Your task to perform on an android device: Go to CNN.com Image 0: 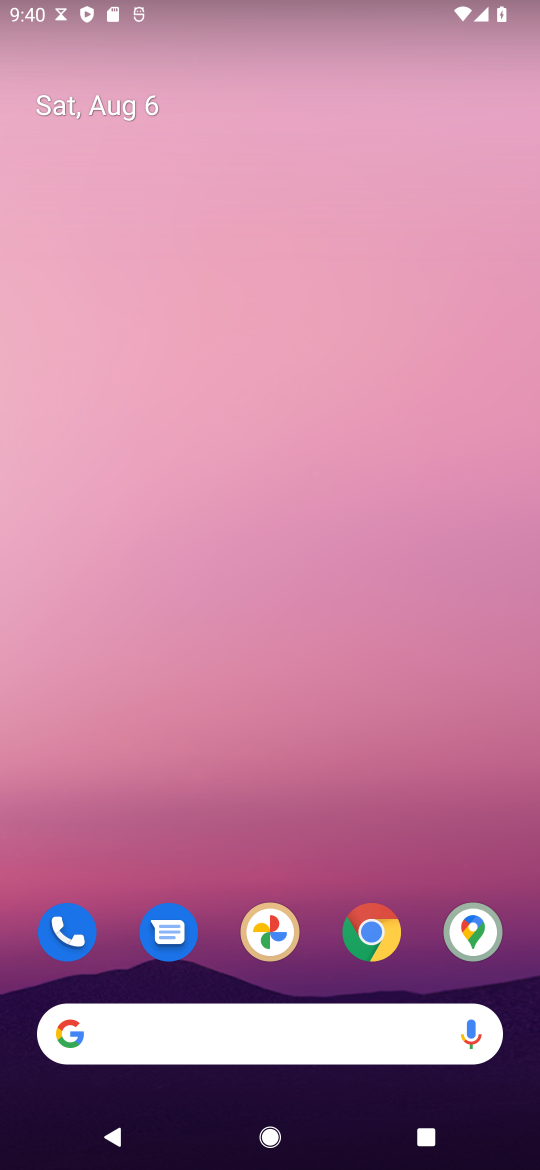
Step 0: click (371, 933)
Your task to perform on an android device: Go to CNN.com Image 1: 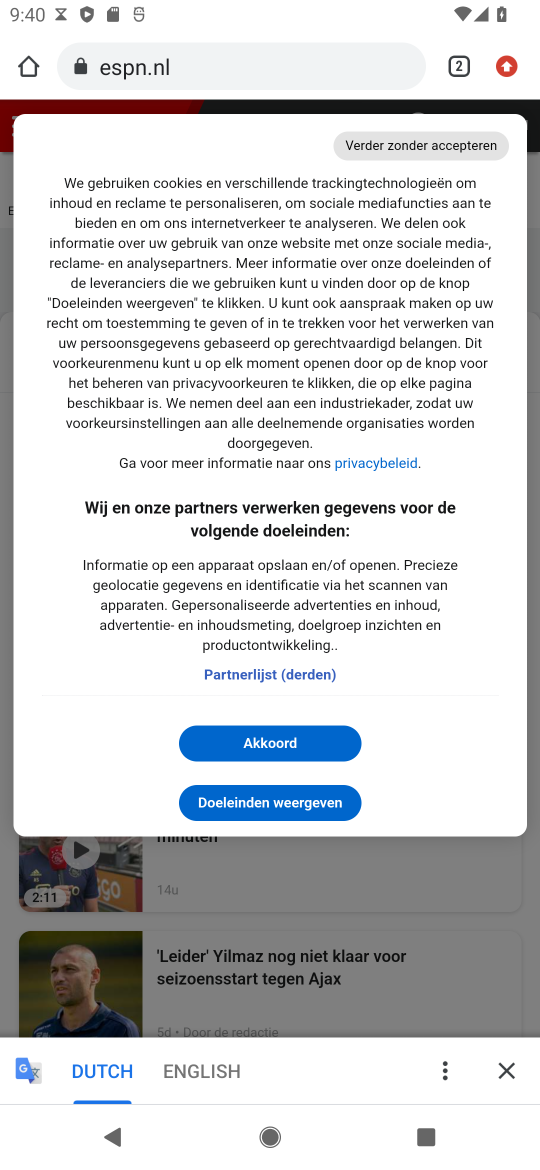
Step 1: click (273, 740)
Your task to perform on an android device: Go to CNN.com Image 2: 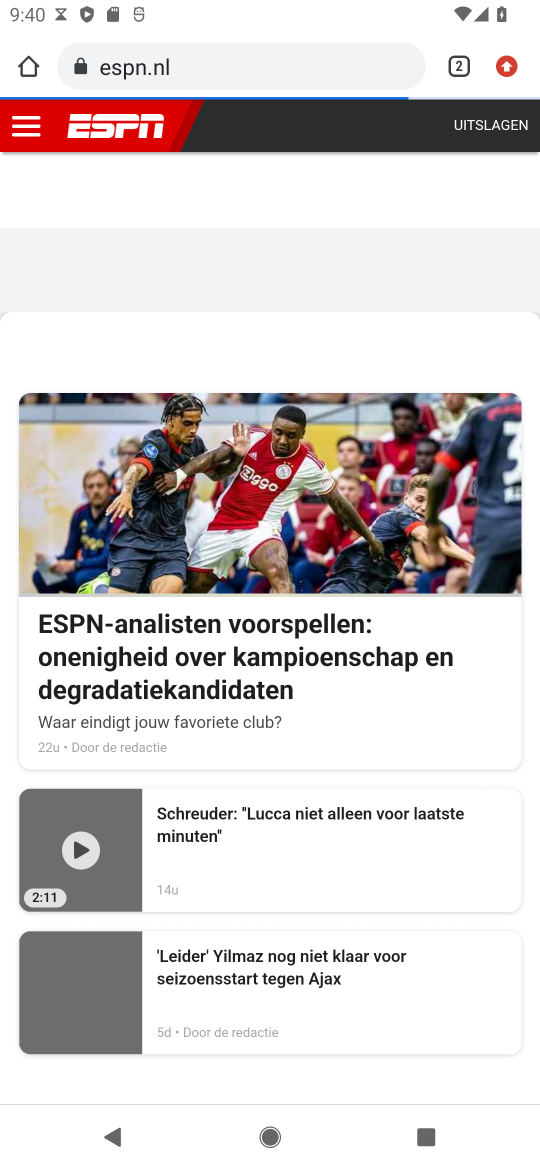
Step 2: click (249, 68)
Your task to perform on an android device: Go to CNN.com Image 3: 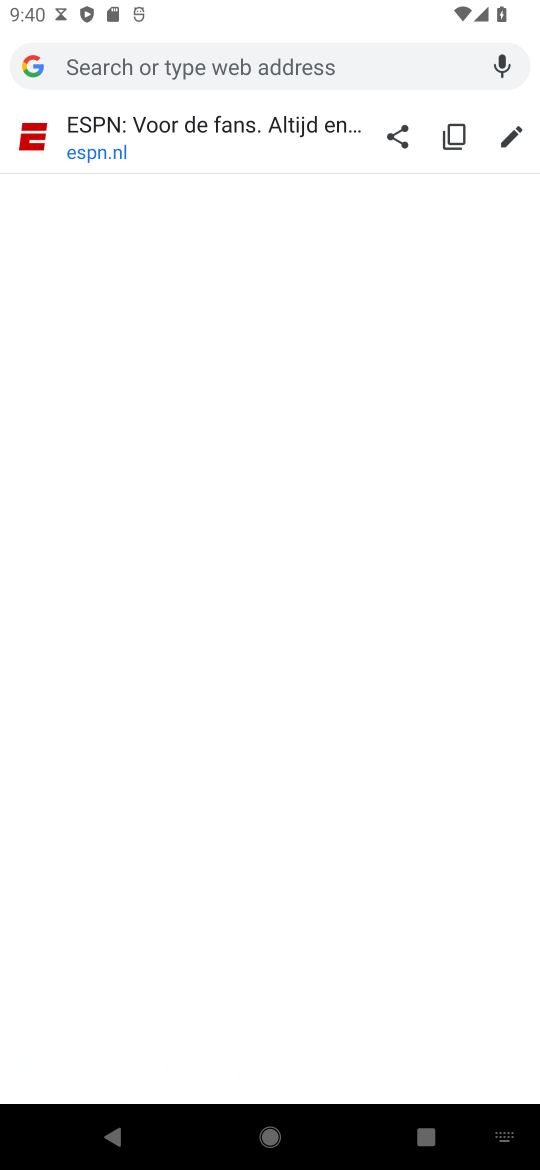
Step 3: type "CNN.com"
Your task to perform on an android device: Go to CNN.com Image 4: 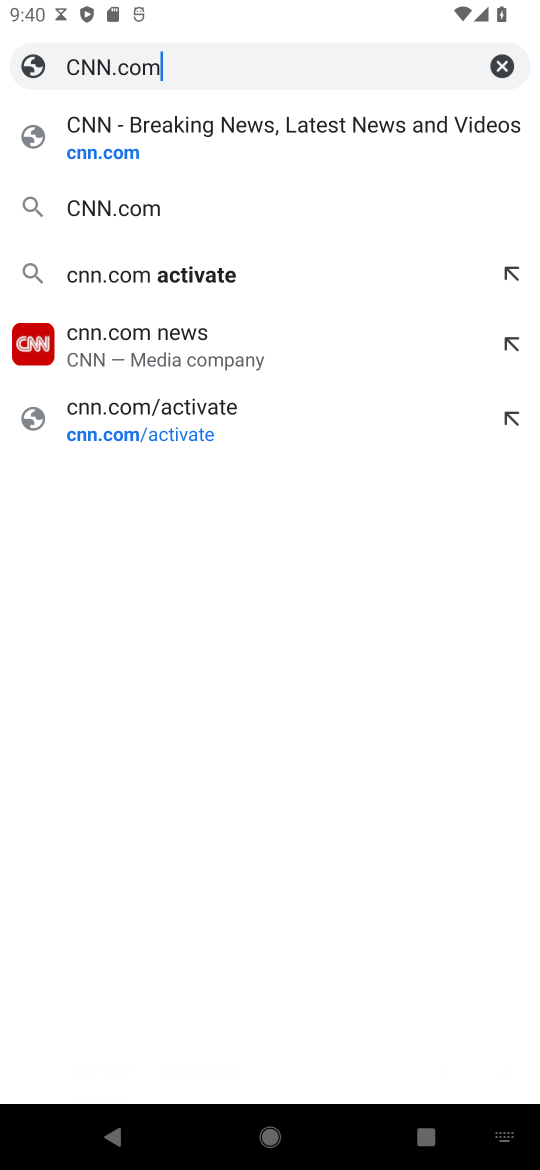
Step 4: click (129, 217)
Your task to perform on an android device: Go to CNN.com Image 5: 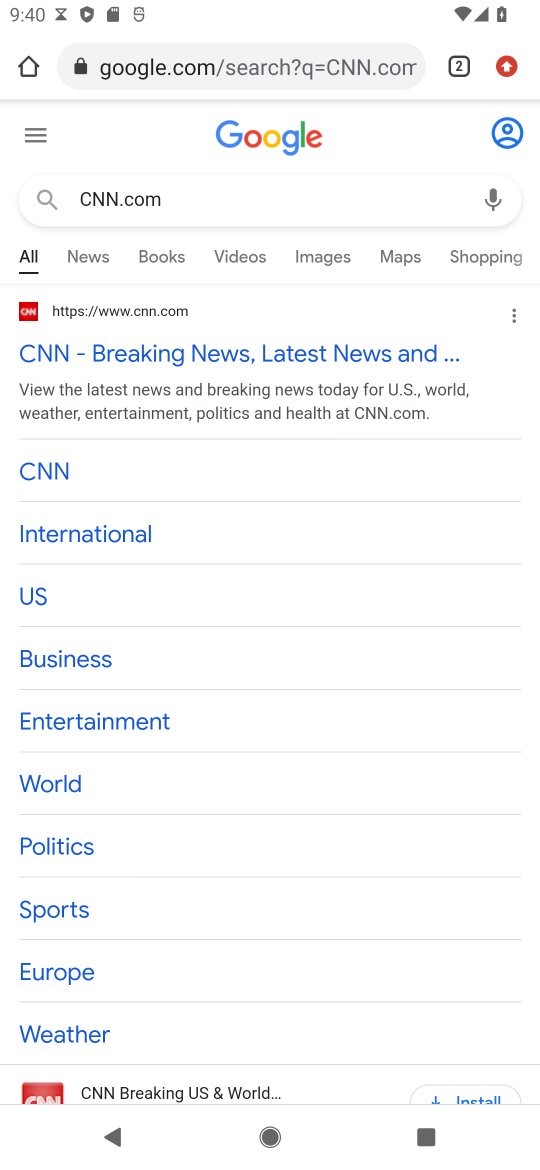
Step 5: click (306, 367)
Your task to perform on an android device: Go to CNN.com Image 6: 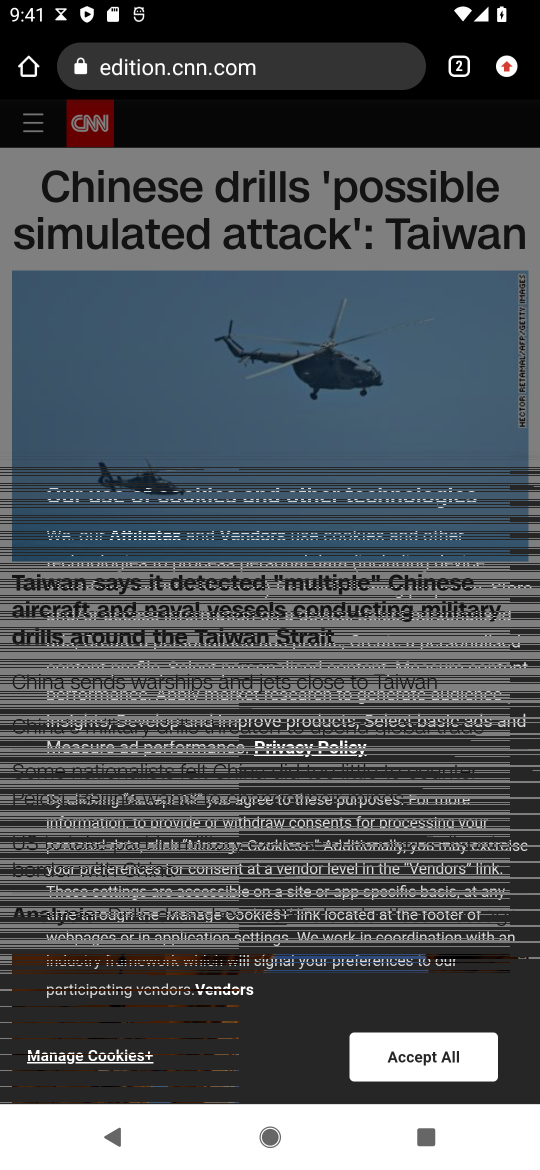
Step 6: click (421, 1062)
Your task to perform on an android device: Go to CNN.com Image 7: 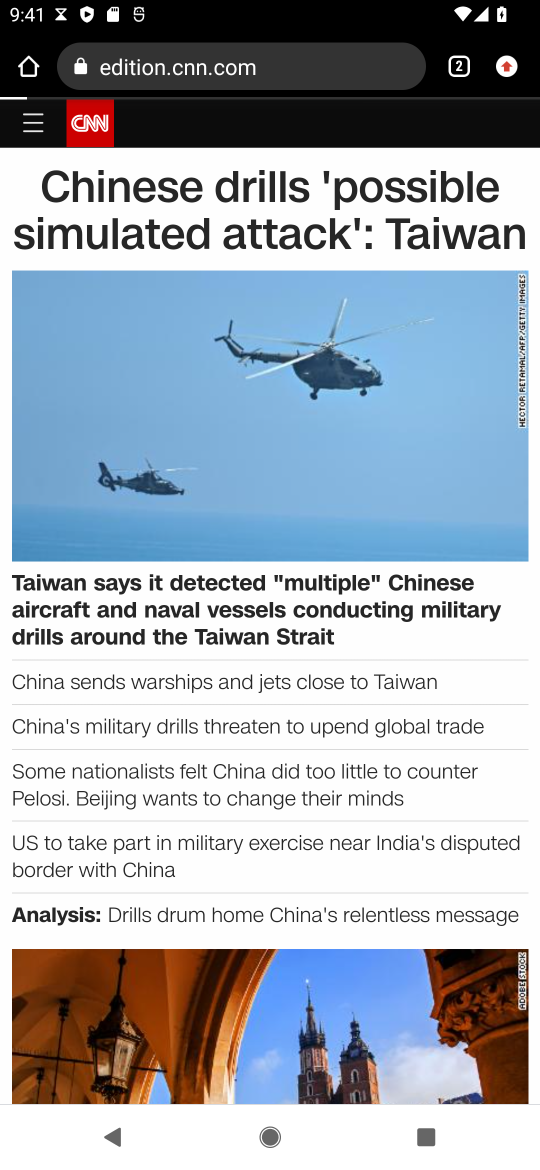
Step 7: task complete